Your task to perform on an android device: Go to Maps Image 0: 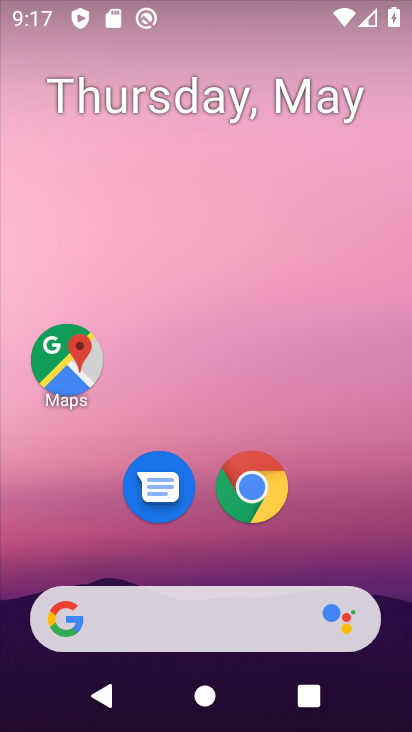
Step 0: click (77, 350)
Your task to perform on an android device: Go to Maps Image 1: 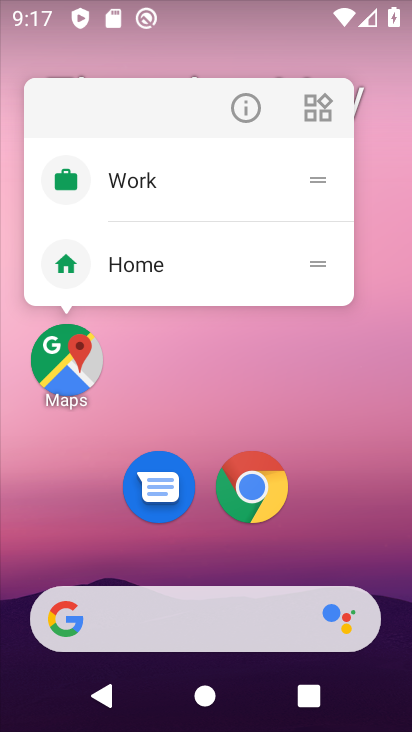
Step 1: click (76, 355)
Your task to perform on an android device: Go to Maps Image 2: 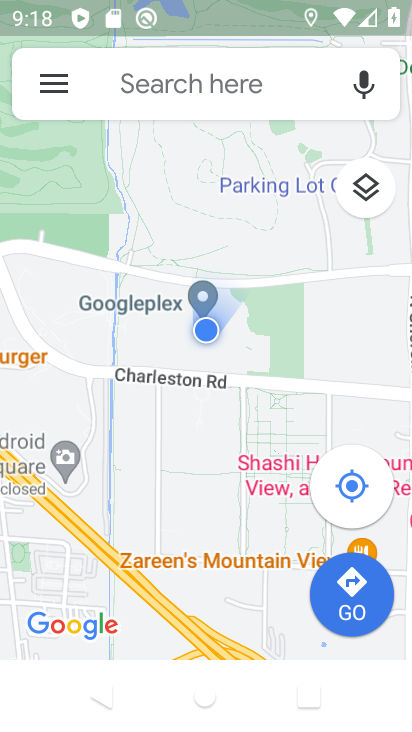
Step 2: task complete